Your task to perform on an android device: turn off improve location accuracy Image 0: 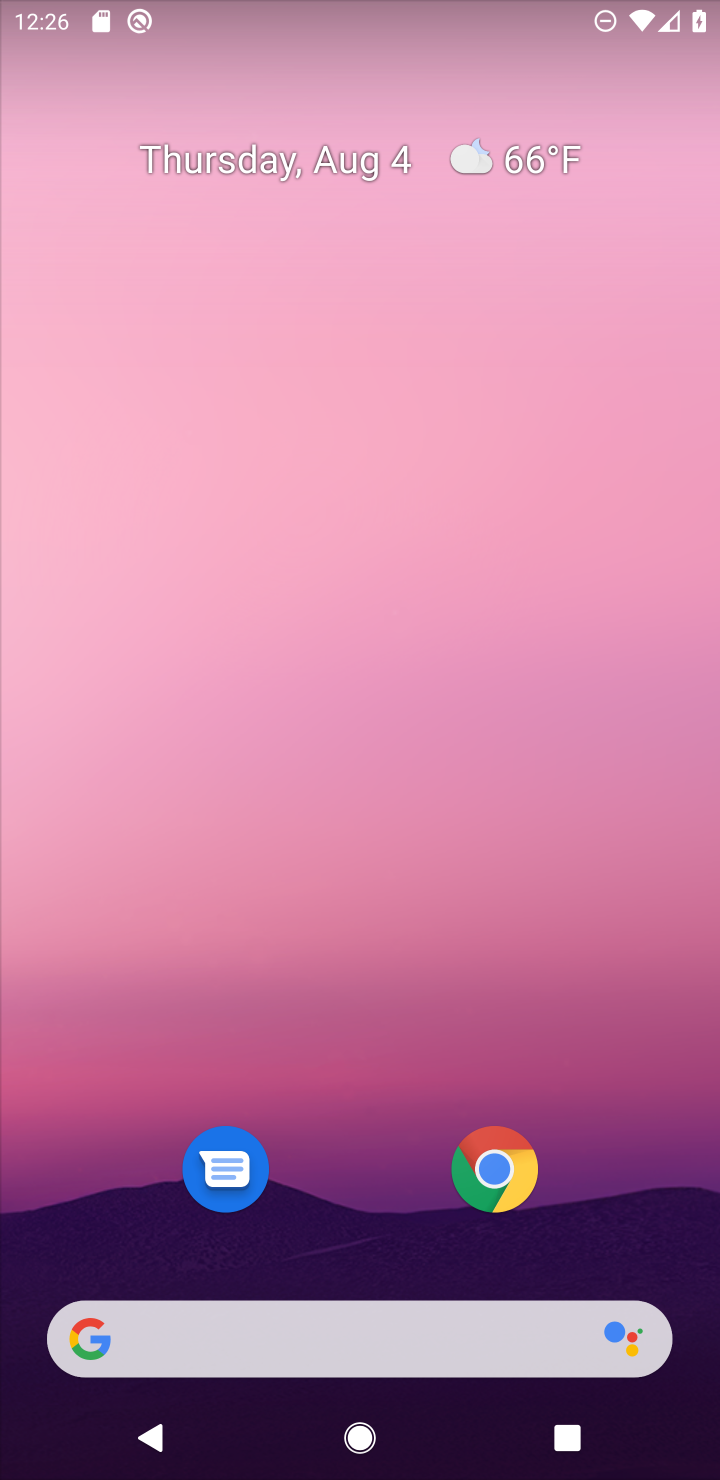
Step 0: drag from (347, 954) to (390, 15)
Your task to perform on an android device: turn off improve location accuracy Image 1: 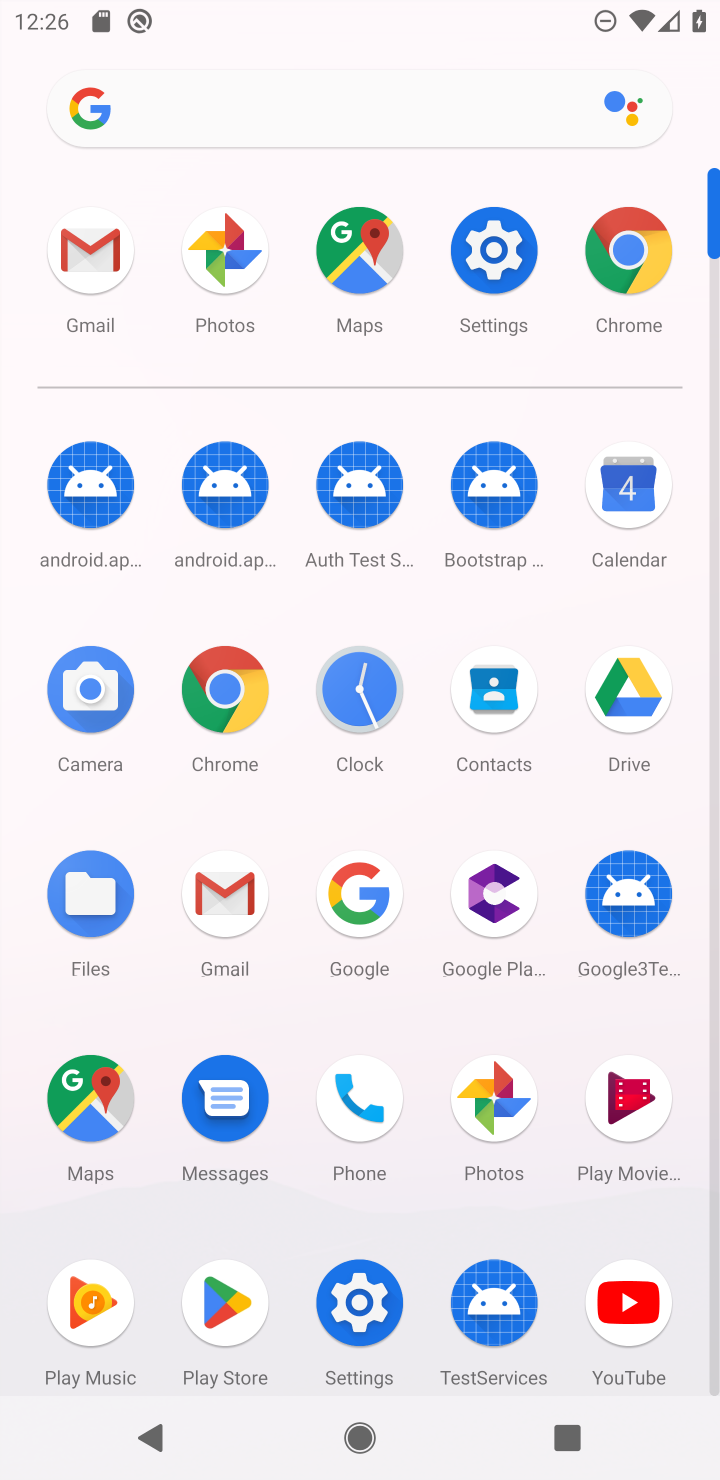
Step 1: click (489, 253)
Your task to perform on an android device: turn off improve location accuracy Image 2: 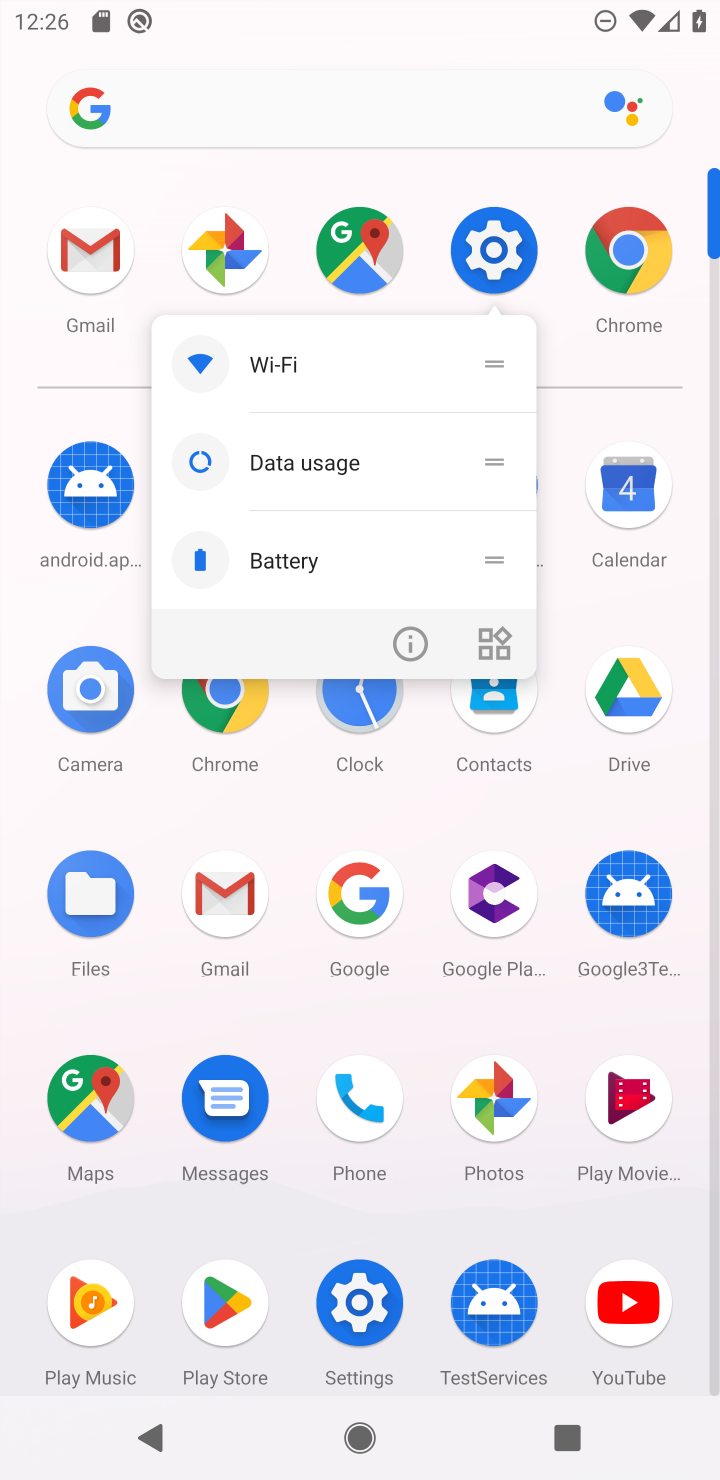
Step 2: click (489, 253)
Your task to perform on an android device: turn off improve location accuracy Image 3: 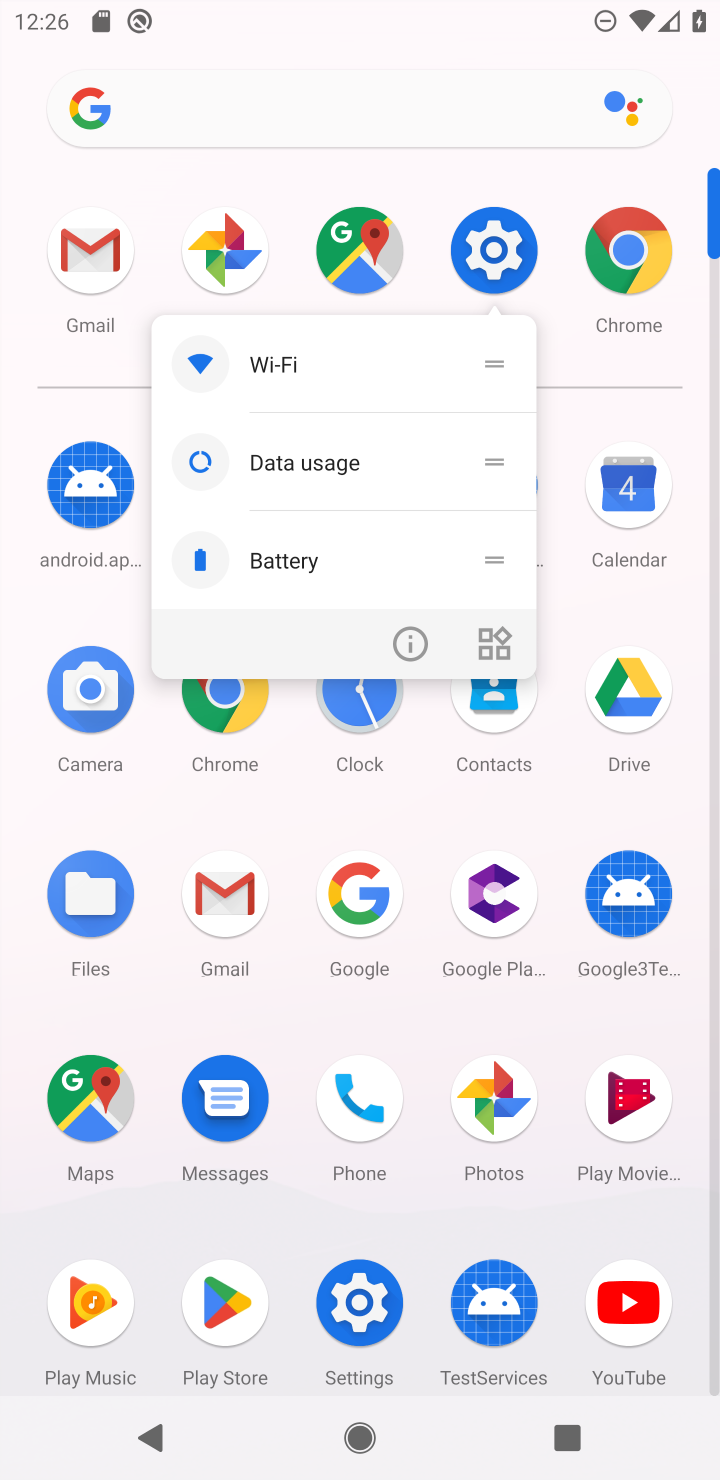
Step 3: click (494, 249)
Your task to perform on an android device: turn off improve location accuracy Image 4: 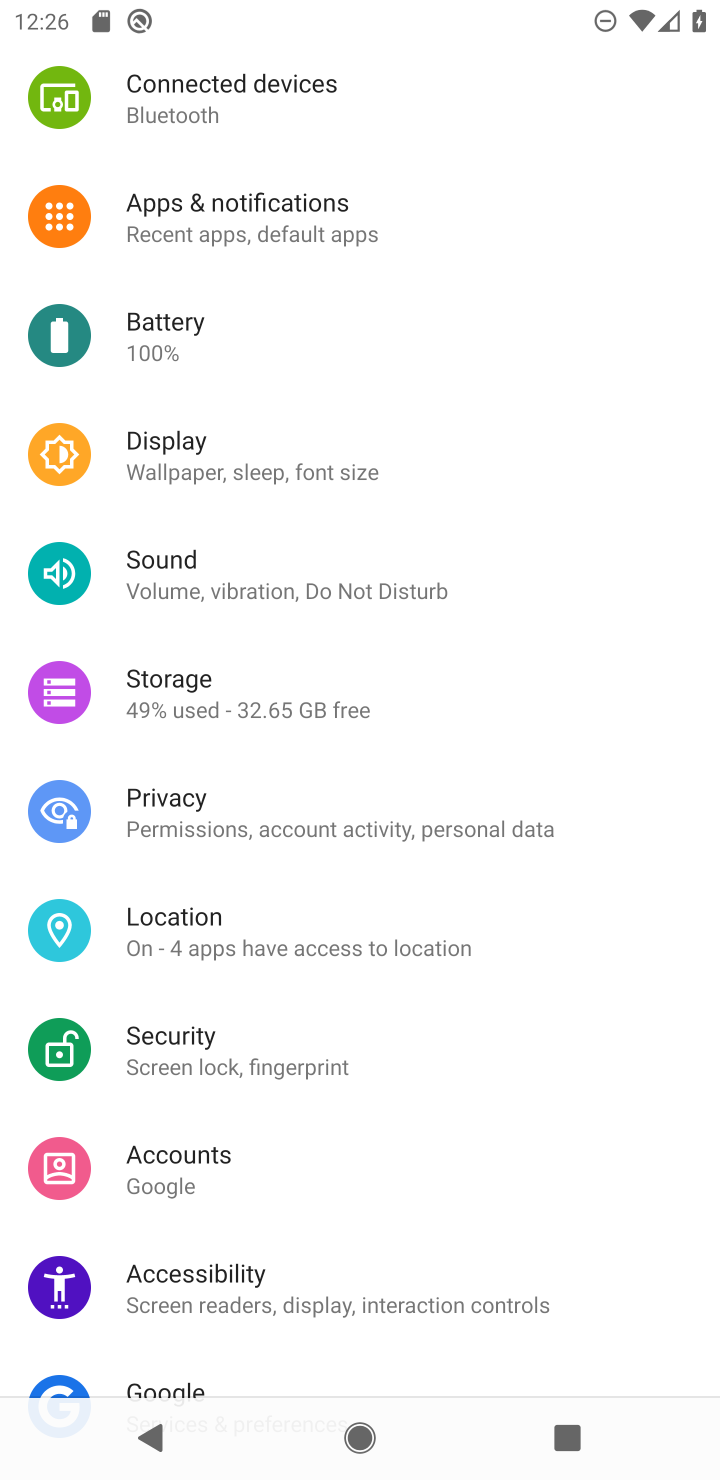
Step 4: click (167, 946)
Your task to perform on an android device: turn off improve location accuracy Image 5: 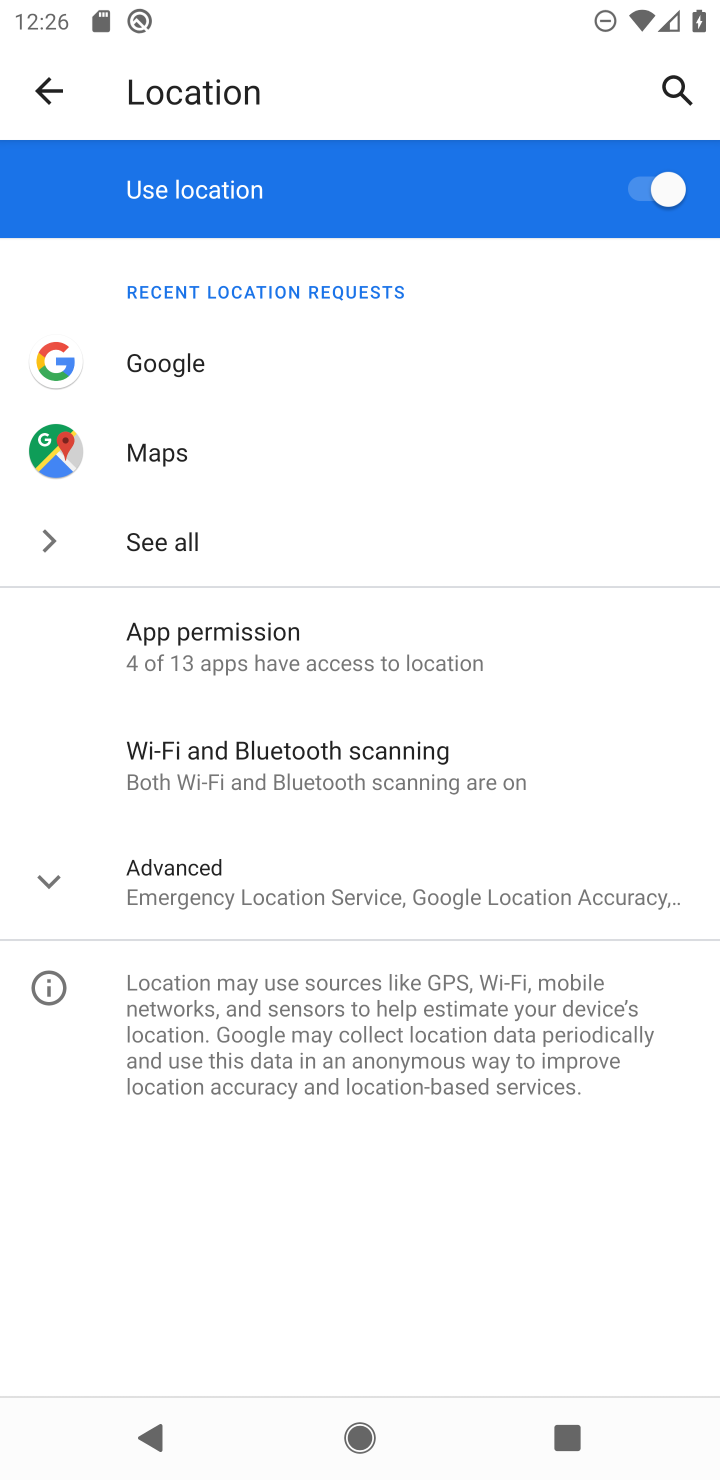
Step 5: click (51, 893)
Your task to perform on an android device: turn off improve location accuracy Image 6: 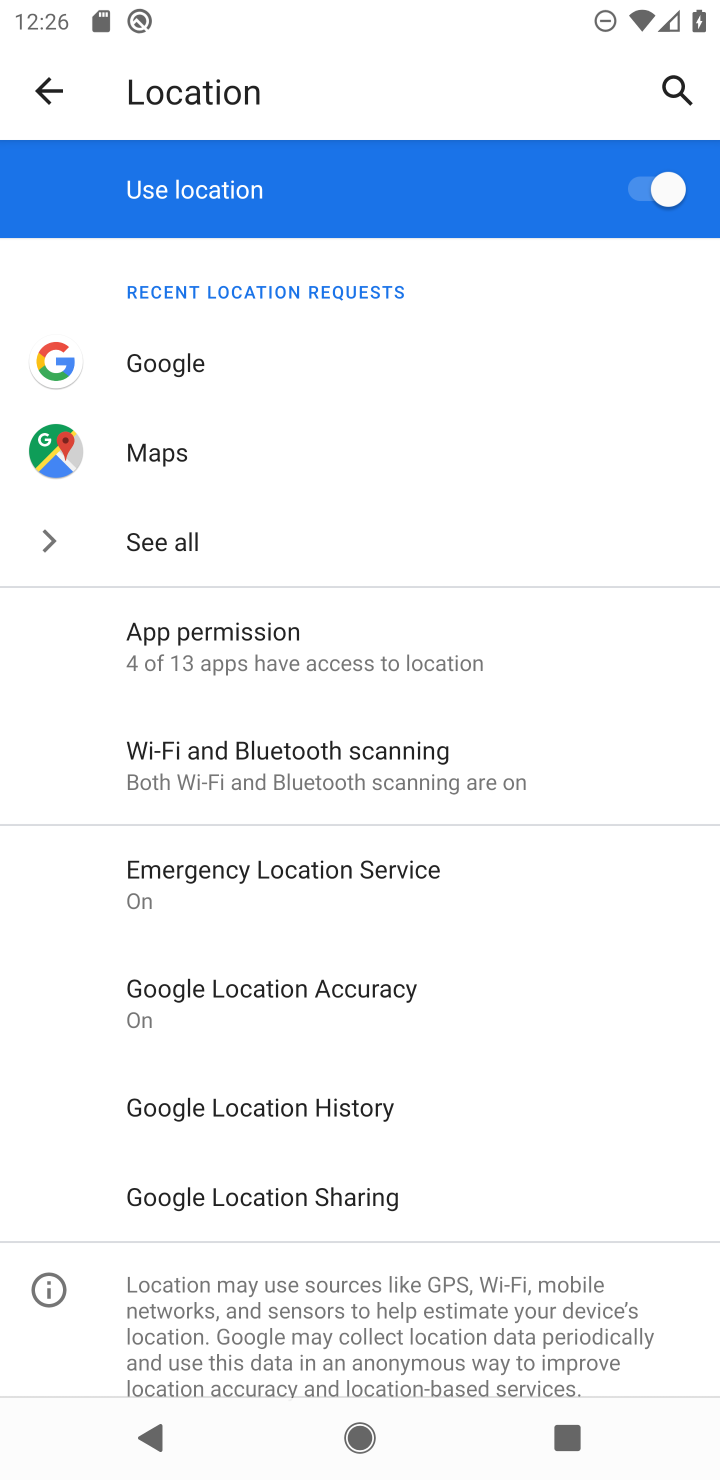
Step 6: click (288, 991)
Your task to perform on an android device: turn off improve location accuracy Image 7: 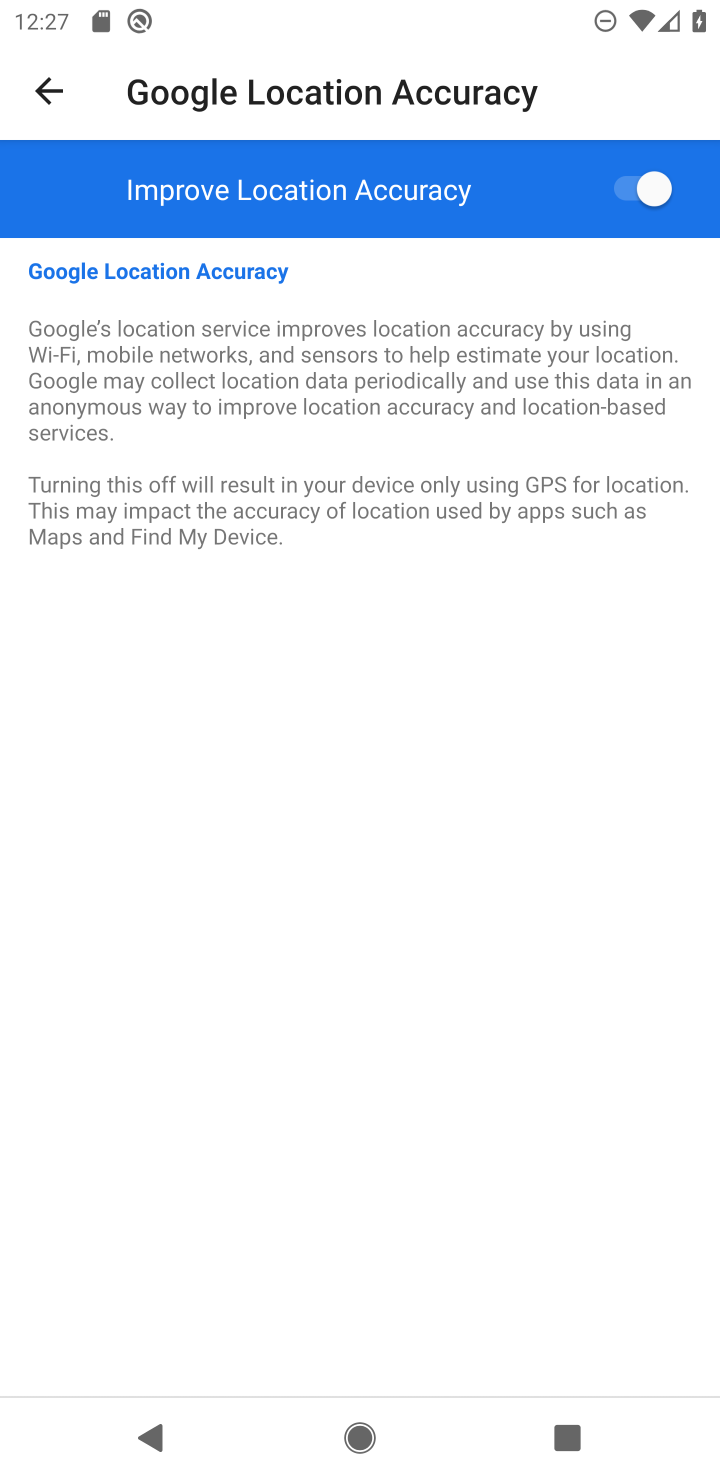
Step 7: click (656, 213)
Your task to perform on an android device: turn off improve location accuracy Image 8: 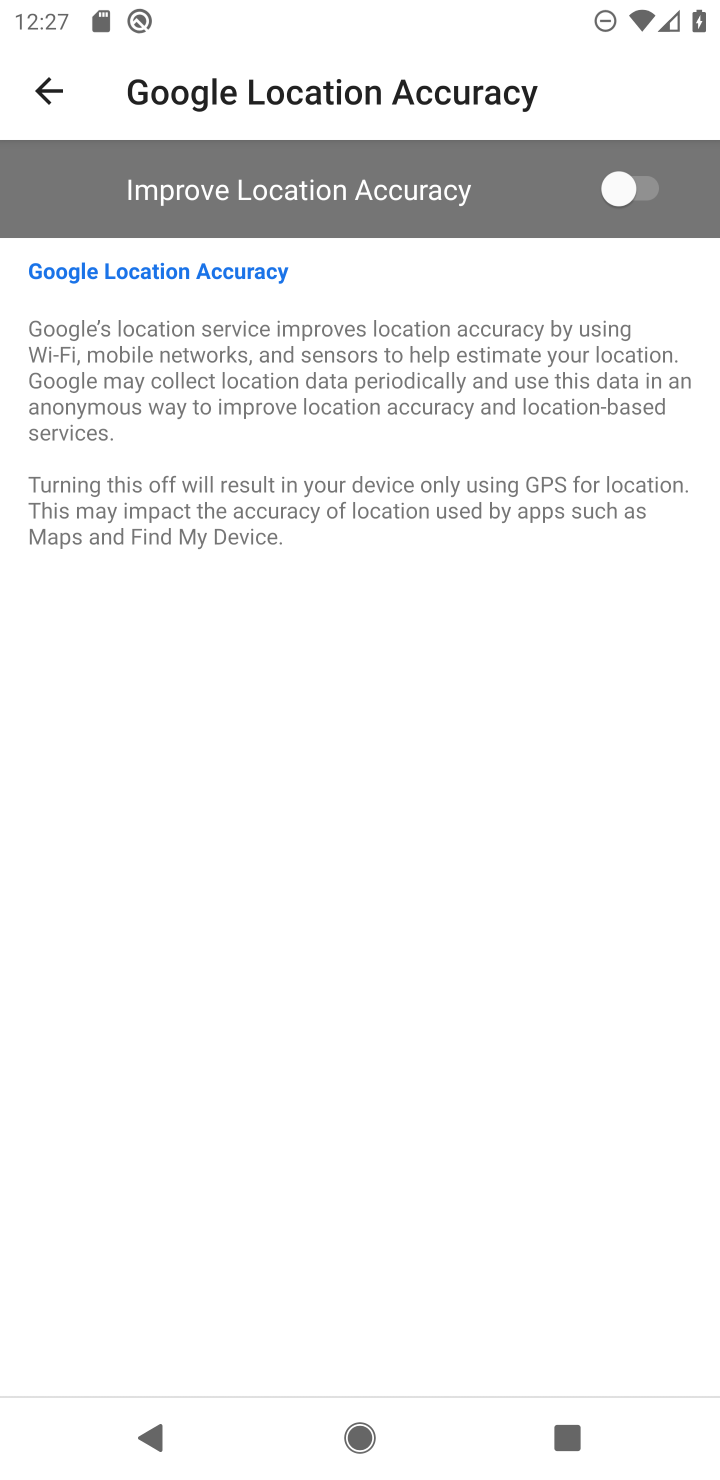
Step 8: task complete